Your task to perform on an android device: Open location settings Image 0: 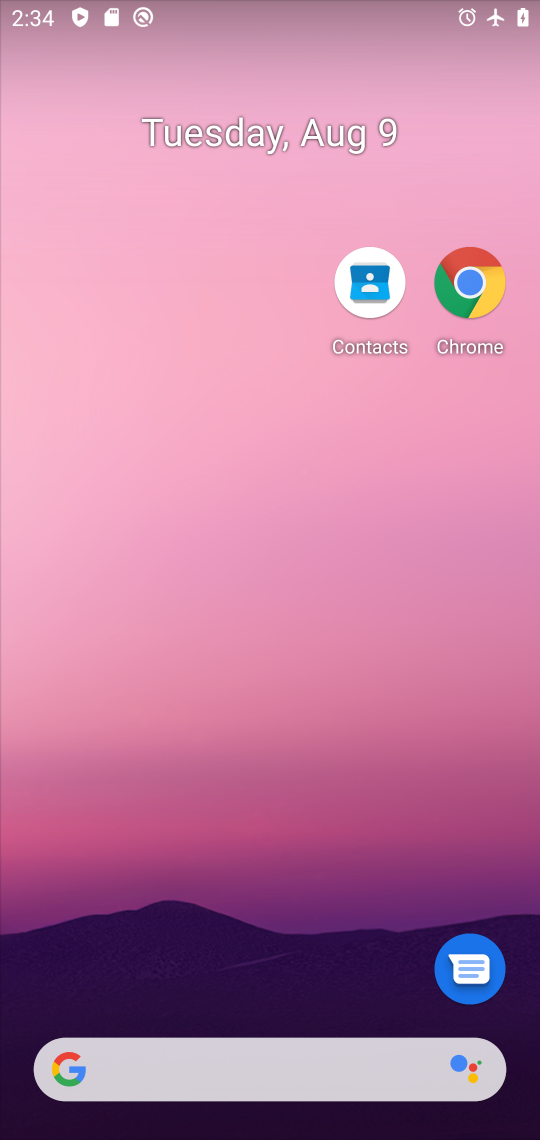
Step 0: drag from (274, 983) to (292, 483)
Your task to perform on an android device: Open location settings Image 1: 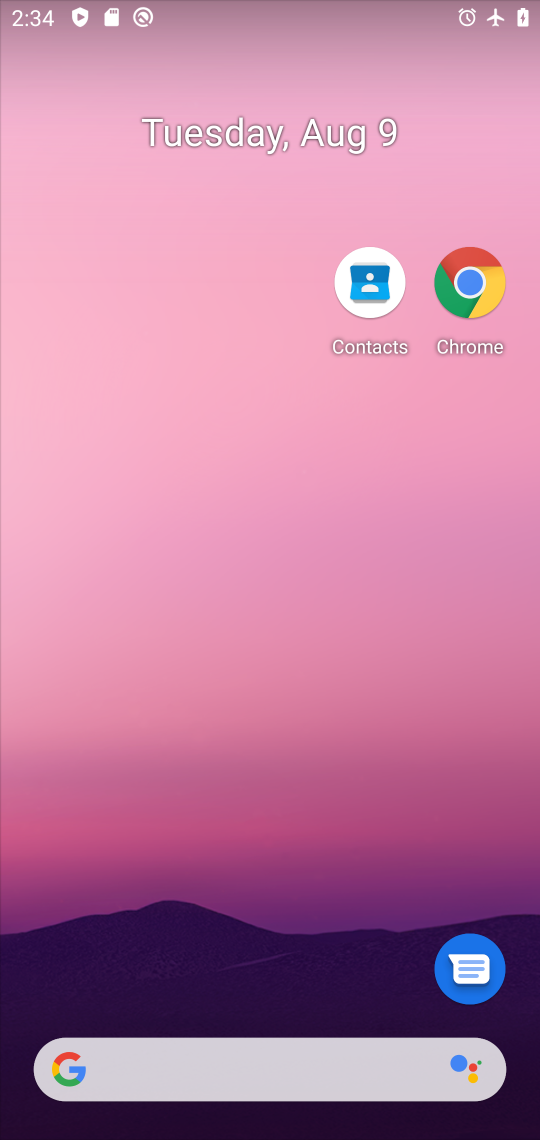
Step 1: drag from (284, 969) to (351, 306)
Your task to perform on an android device: Open location settings Image 2: 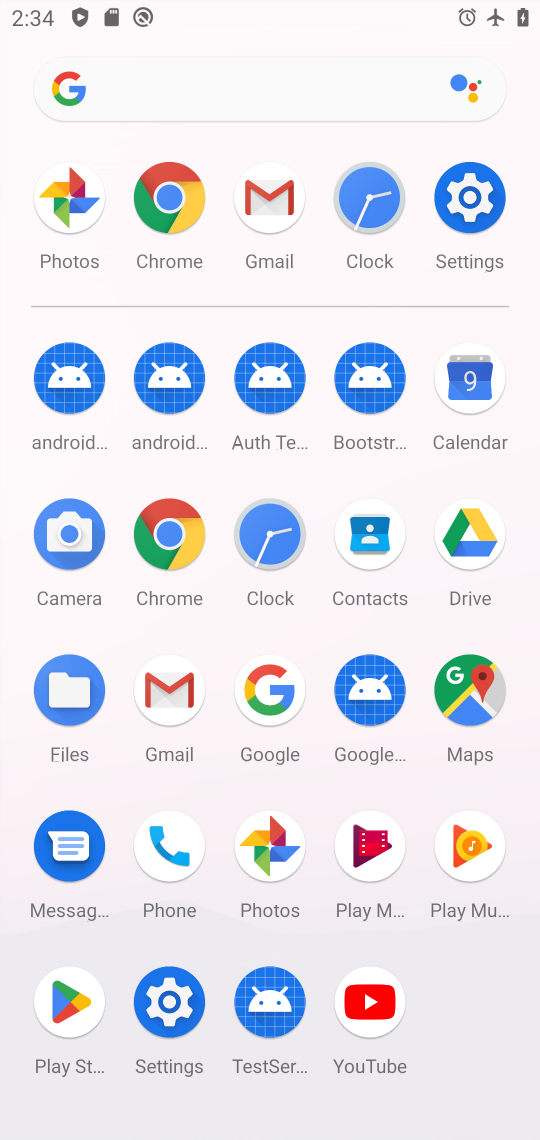
Step 2: click (169, 986)
Your task to perform on an android device: Open location settings Image 3: 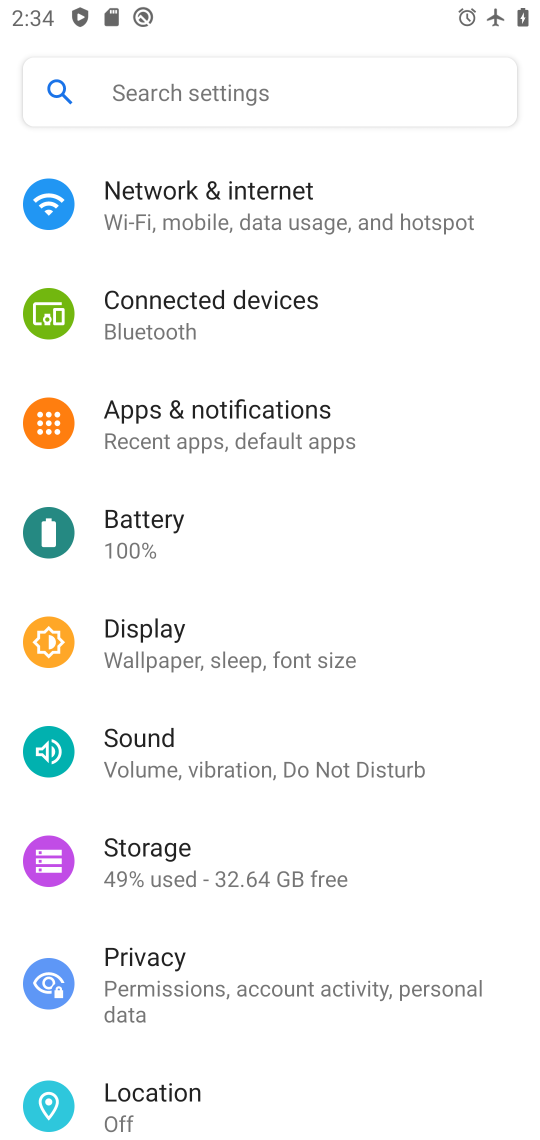
Step 3: click (237, 1088)
Your task to perform on an android device: Open location settings Image 4: 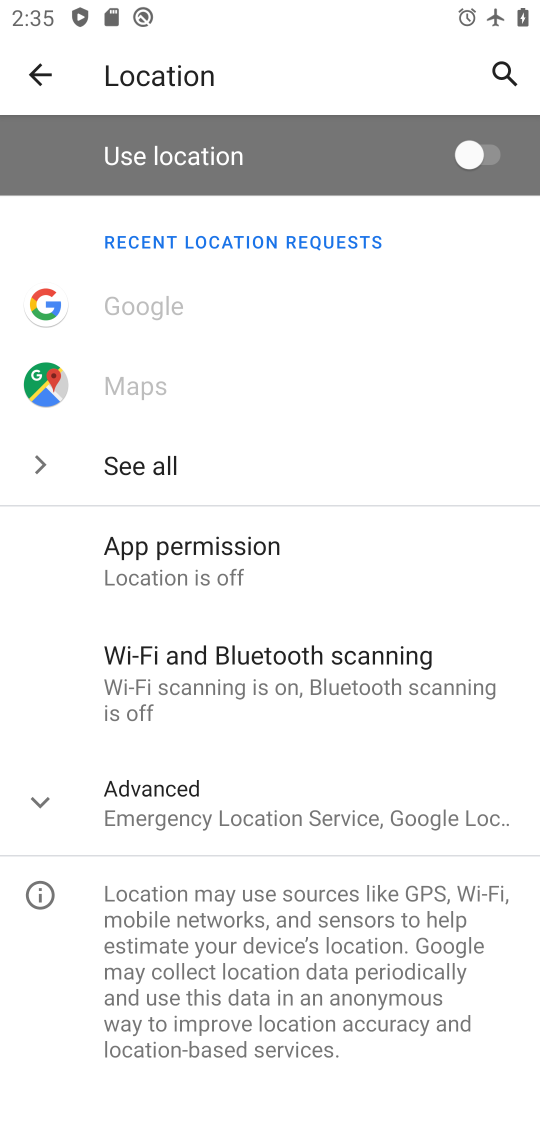
Step 4: task complete